Your task to perform on an android device: Open Amazon Image 0: 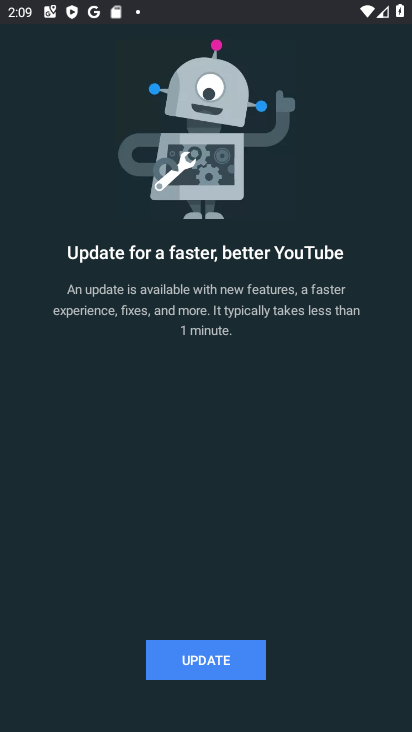
Step 0: press back button
Your task to perform on an android device: Open Amazon Image 1: 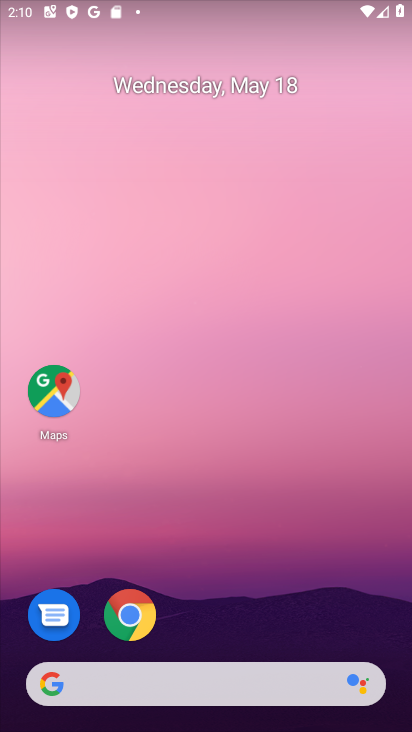
Step 1: click (143, 604)
Your task to perform on an android device: Open Amazon Image 2: 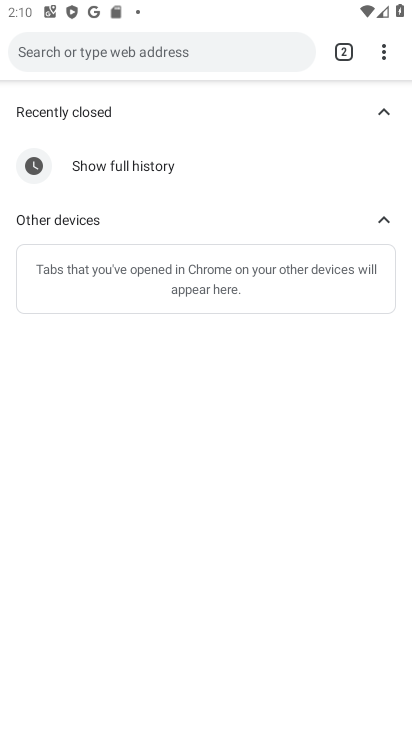
Step 2: click (347, 58)
Your task to perform on an android device: Open Amazon Image 3: 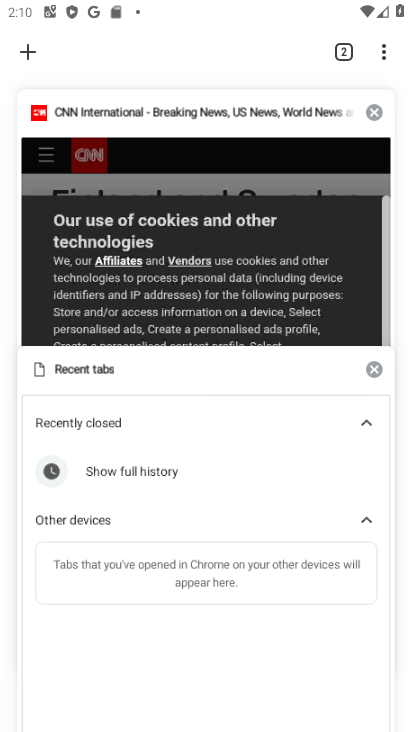
Step 3: click (37, 45)
Your task to perform on an android device: Open Amazon Image 4: 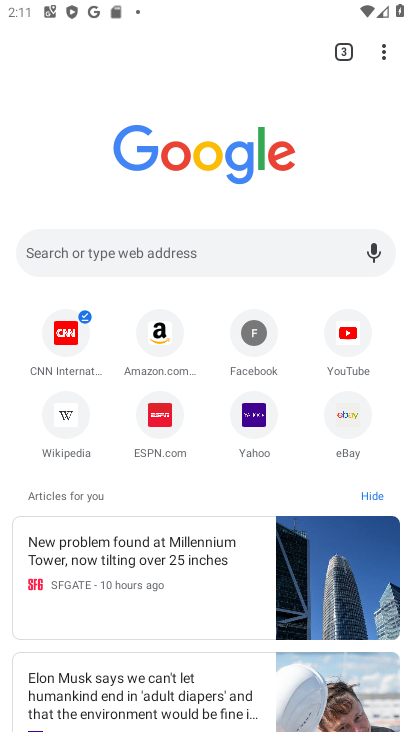
Step 4: click (165, 352)
Your task to perform on an android device: Open Amazon Image 5: 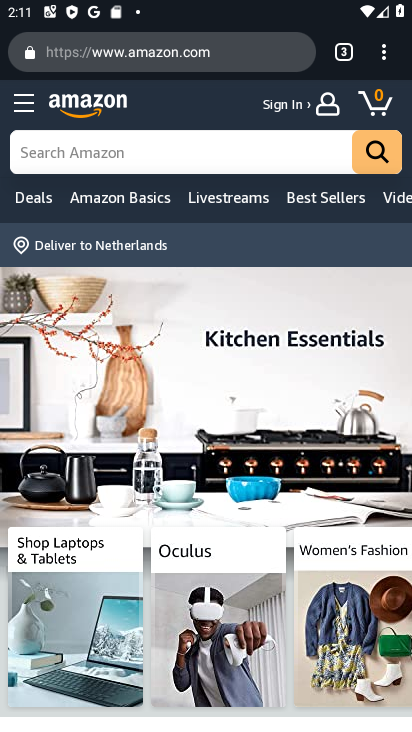
Step 5: task complete